Your task to perform on an android device: Open network settings Image 0: 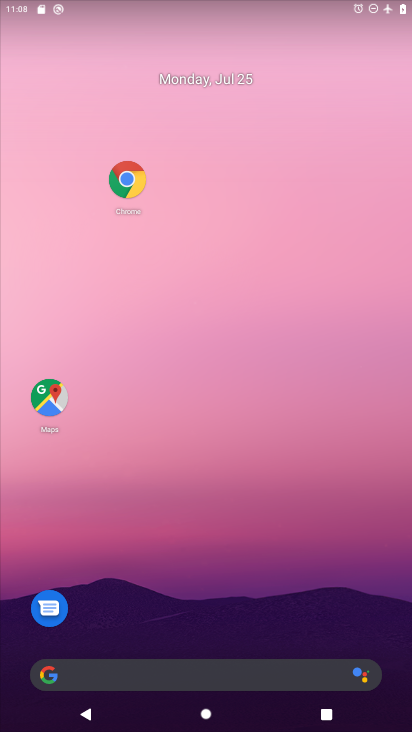
Step 0: drag from (128, 685) to (141, 18)
Your task to perform on an android device: Open network settings Image 1: 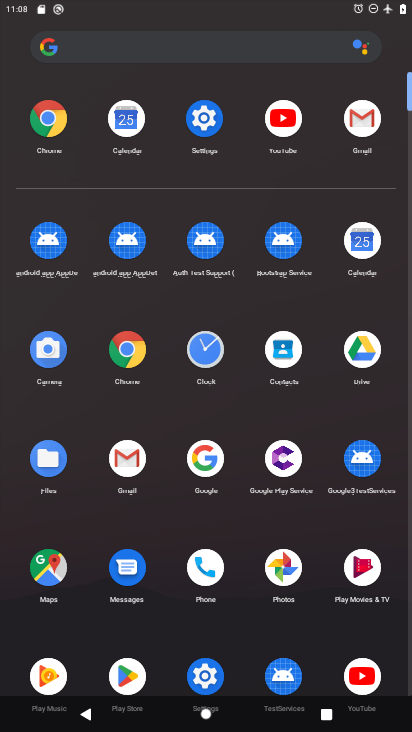
Step 1: click (210, 130)
Your task to perform on an android device: Open network settings Image 2: 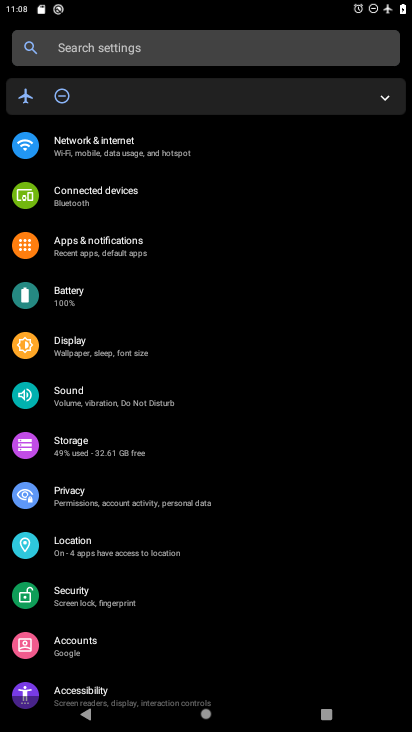
Step 2: click (134, 154)
Your task to perform on an android device: Open network settings Image 3: 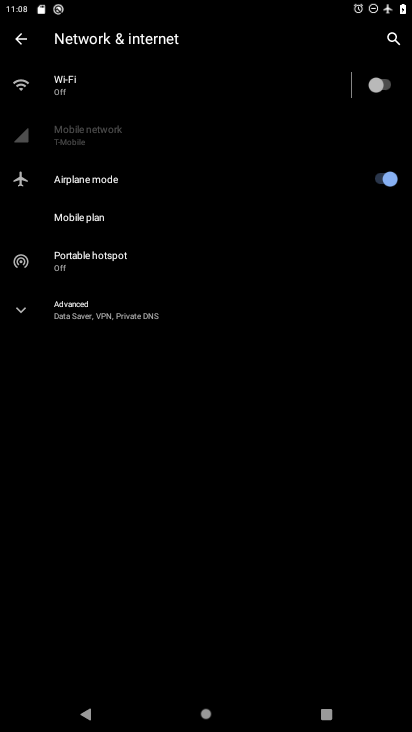
Step 3: task complete